Your task to perform on an android device: set default search engine in the chrome app Image 0: 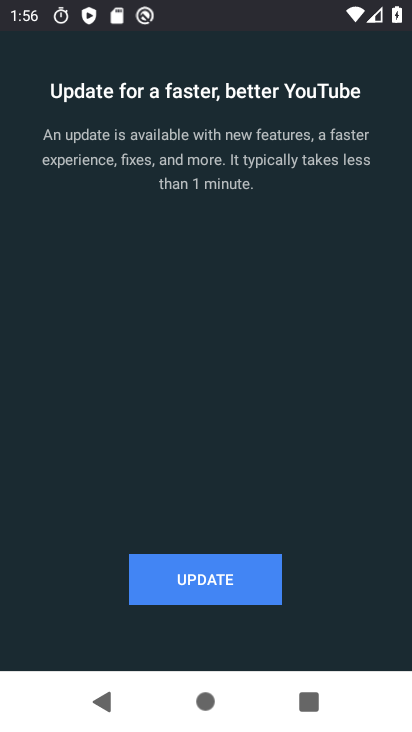
Step 0: press home button
Your task to perform on an android device: set default search engine in the chrome app Image 1: 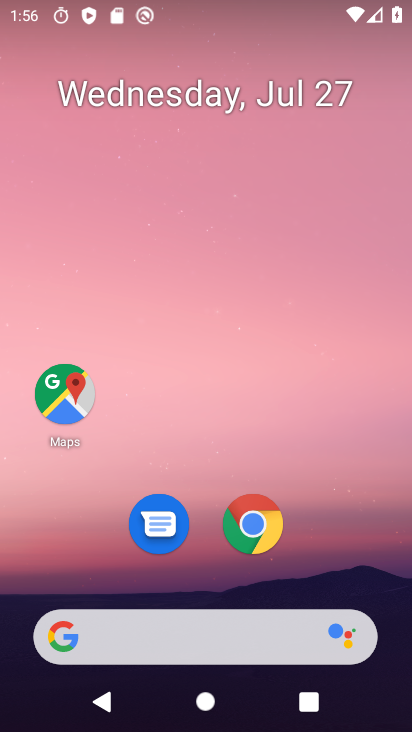
Step 1: click (256, 530)
Your task to perform on an android device: set default search engine in the chrome app Image 2: 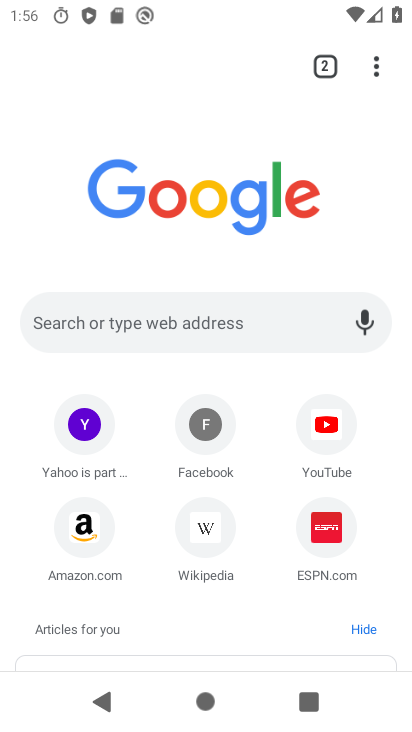
Step 2: click (379, 65)
Your task to perform on an android device: set default search engine in the chrome app Image 3: 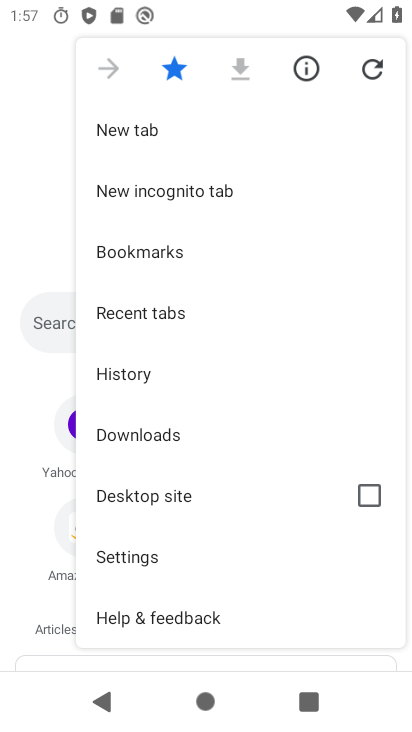
Step 3: click (145, 553)
Your task to perform on an android device: set default search engine in the chrome app Image 4: 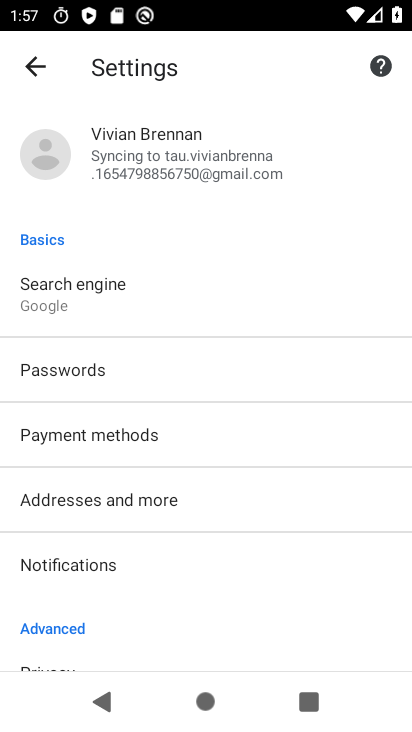
Step 4: click (91, 284)
Your task to perform on an android device: set default search engine in the chrome app Image 5: 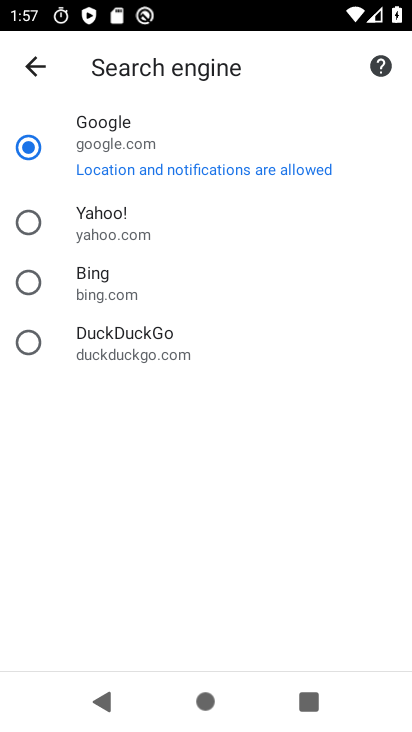
Step 5: task complete